Your task to perform on an android device: What is the recent news? Image 0: 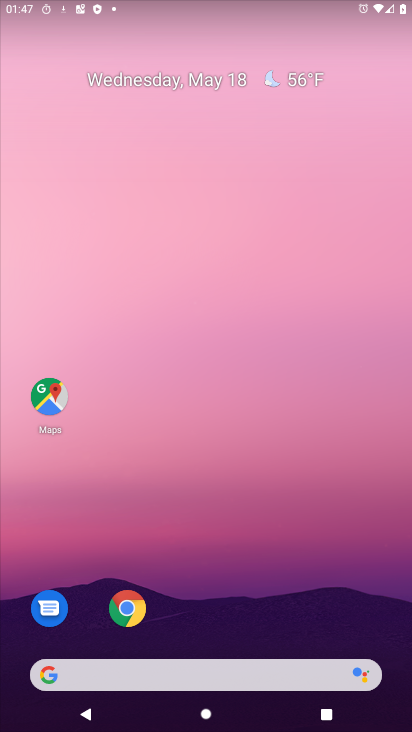
Step 0: click (216, 681)
Your task to perform on an android device: What is the recent news? Image 1: 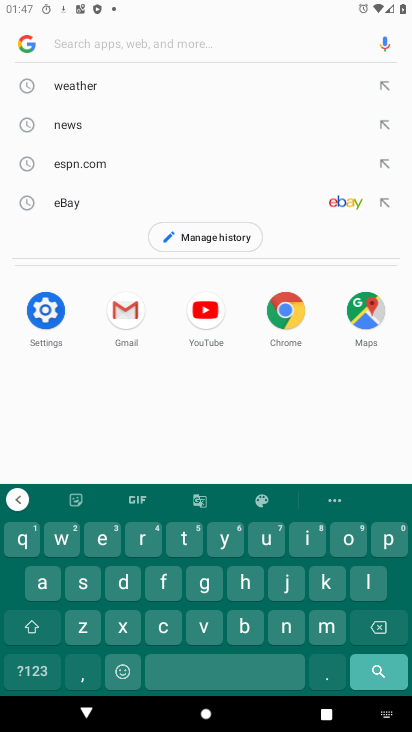
Step 1: click (149, 536)
Your task to perform on an android device: What is the recent news? Image 2: 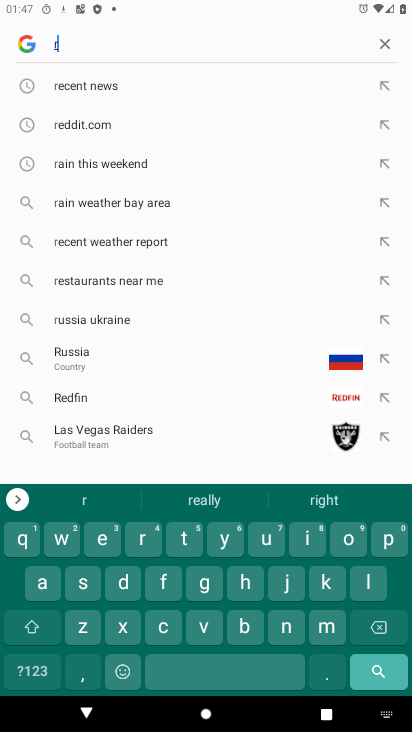
Step 2: click (98, 91)
Your task to perform on an android device: What is the recent news? Image 3: 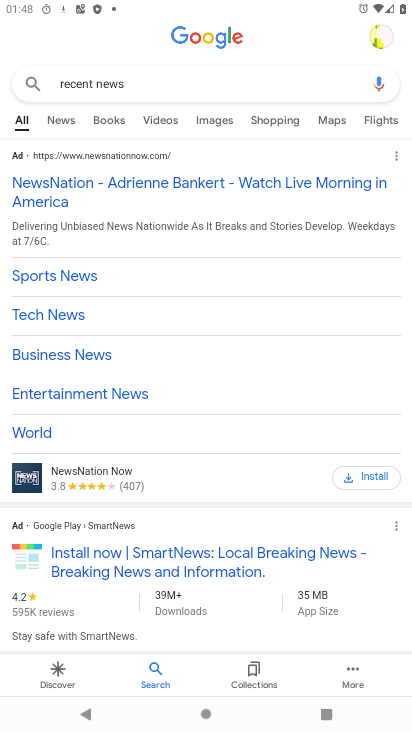
Step 3: task complete